Your task to perform on an android device: Open calendar and show me the second week of next month Image 0: 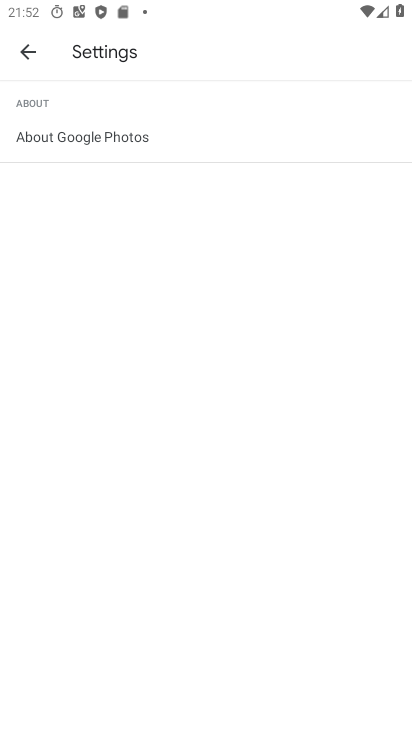
Step 0: press home button
Your task to perform on an android device: Open calendar and show me the second week of next month Image 1: 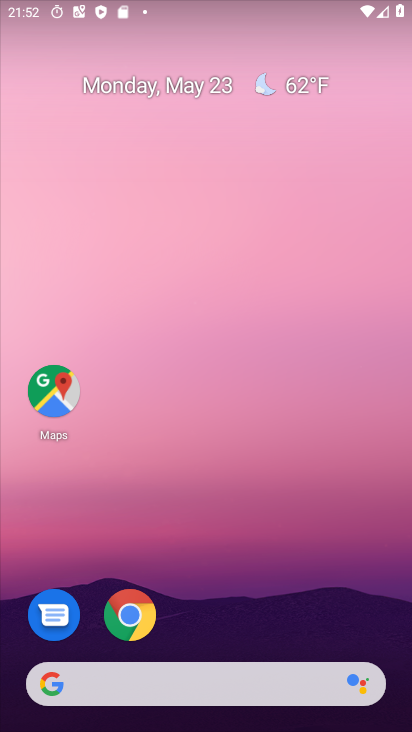
Step 1: drag from (196, 643) to (217, 84)
Your task to perform on an android device: Open calendar and show me the second week of next month Image 2: 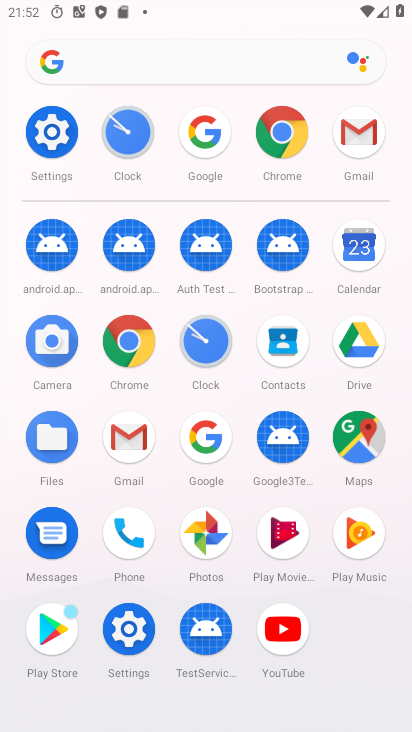
Step 2: click (361, 240)
Your task to perform on an android device: Open calendar and show me the second week of next month Image 3: 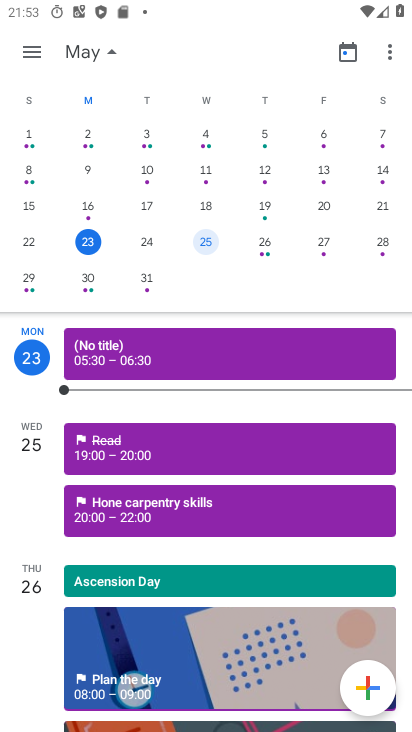
Step 3: drag from (365, 282) to (7, 256)
Your task to perform on an android device: Open calendar and show me the second week of next month Image 4: 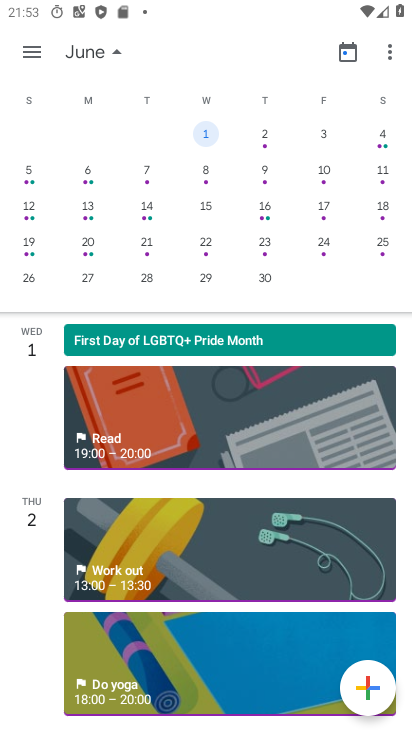
Step 4: click (262, 170)
Your task to perform on an android device: Open calendar and show me the second week of next month Image 5: 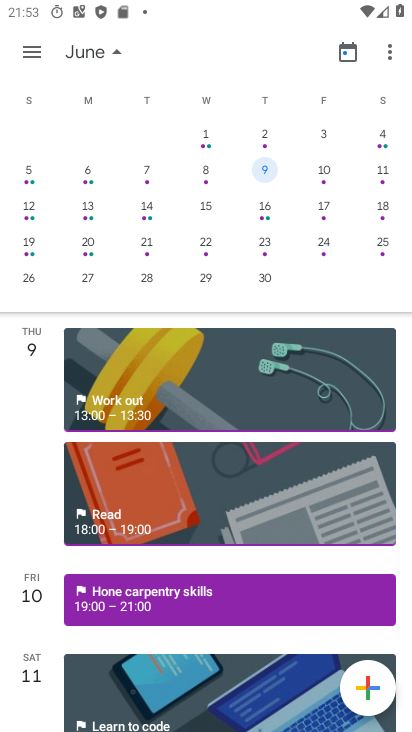
Step 5: task complete